Your task to perform on an android device: check out phone information Image 0: 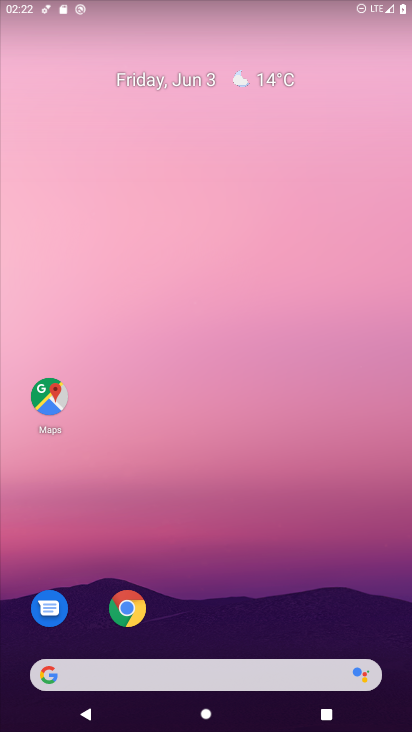
Step 0: drag from (313, 572) to (253, 114)
Your task to perform on an android device: check out phone information Image 1: 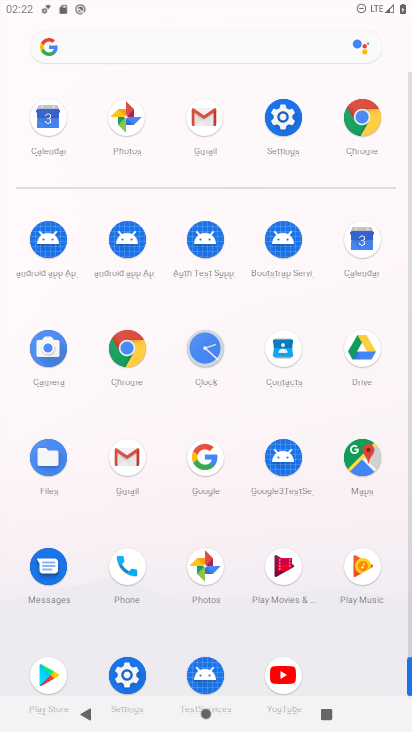
Step 1: click (283, 118)
Your task to perform on an android device: check out phone information Image 2: 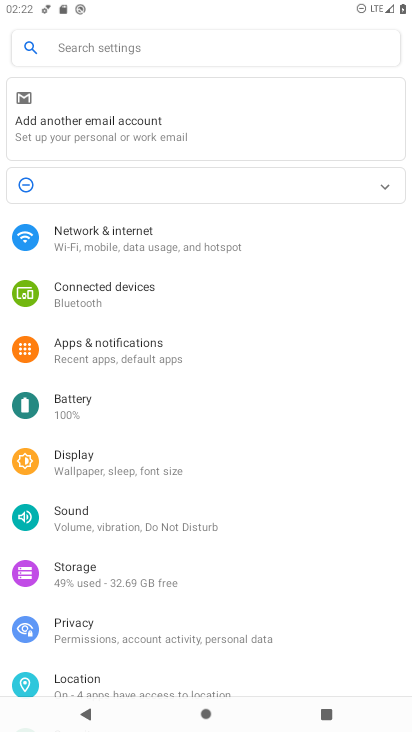
Step 2: press home button
Your task to perform on an android device: check out phone information Image 3: 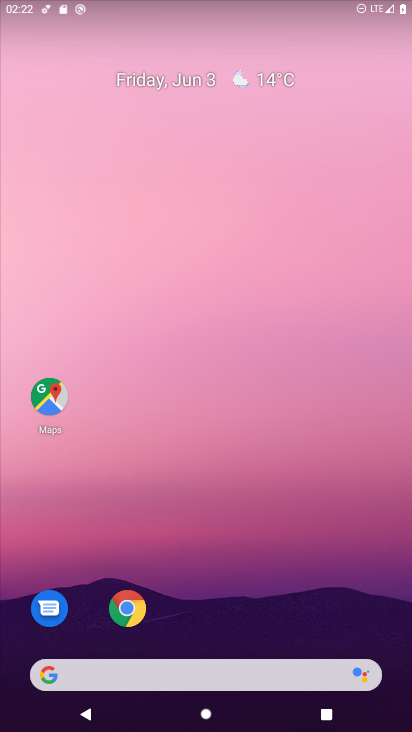
Step 3: drag from (280, 571) to (201, 89)
Your task to perform on an android device: check out phone information Image 4: 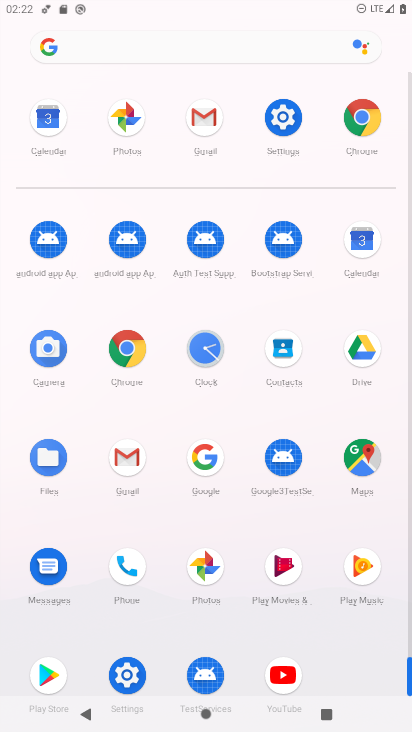
Step 4: click (133, 567)
Your task to perform on an android device: check out phone information Image 5: 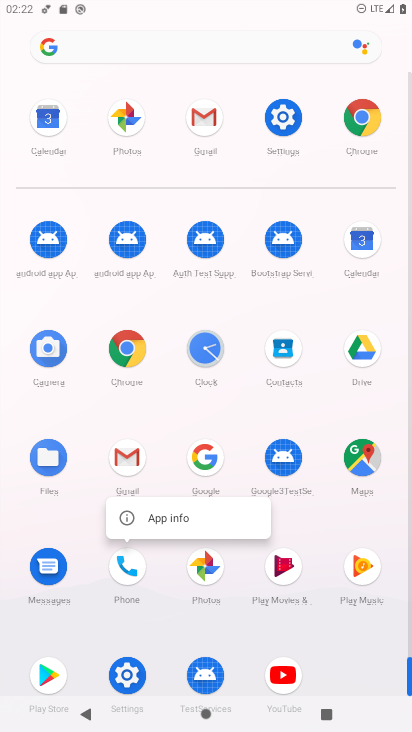
Step 5: click (155, 521)
Your task to perform on an android device: check out phone information Image 6: 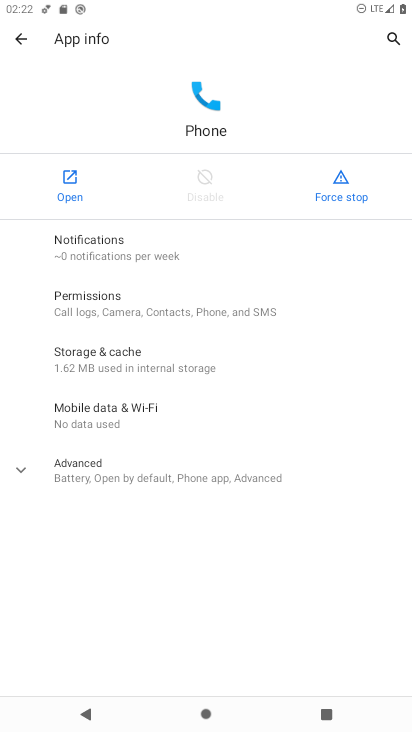
Step 6: task complete